Your task to perform on an android device: Do I have any events today? Image 0: 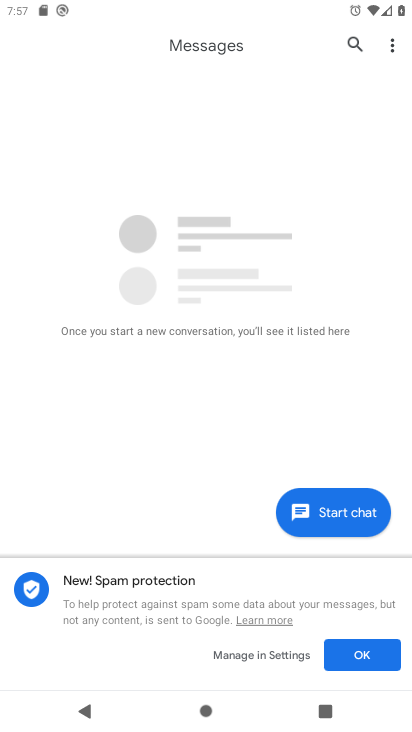
Step 0: press home button
Your task to perform on an android device: Do I have any events today? Image 1: 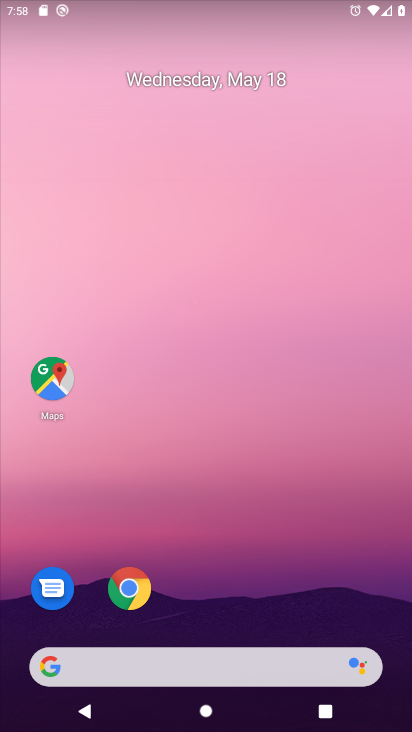
Step 1: drag from (198, 604) to (234, 258)
Your task to perform on an android device: Do I have any events today? Image 2: 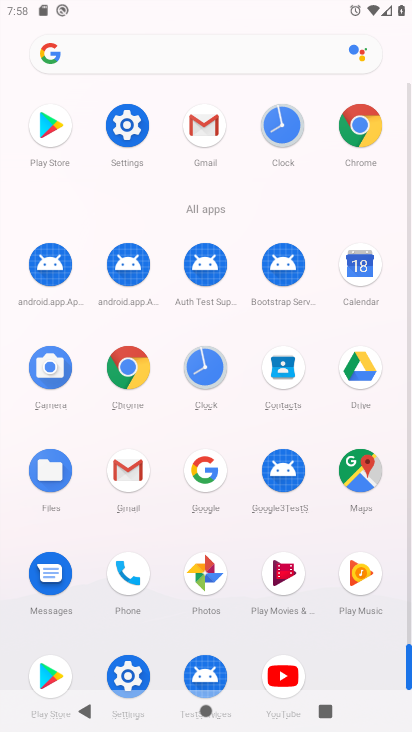
Step 2: click (367, 267)
Your task to perform on an android device: Do I have any events today? Image 3: 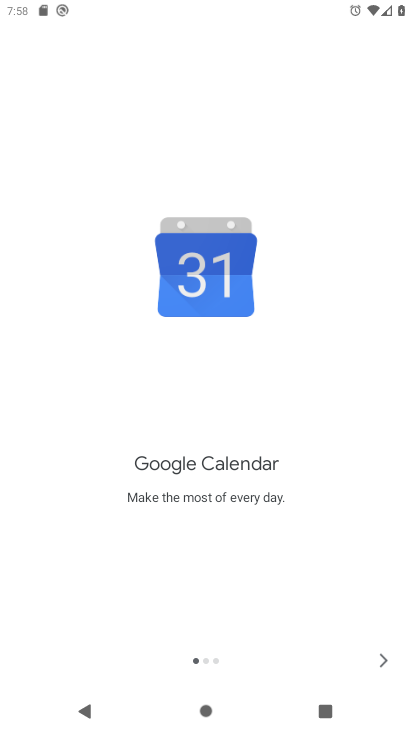
Step 3: click (379, 664)
Your task to perform on an android device: Do I have any events today? Image 4: 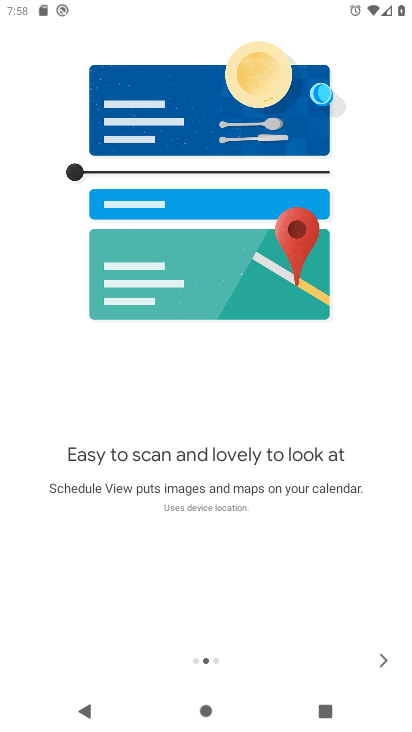
Step 4: click (374, 673)
Your task to perform on an android device: Do I have any events today? Image 5: 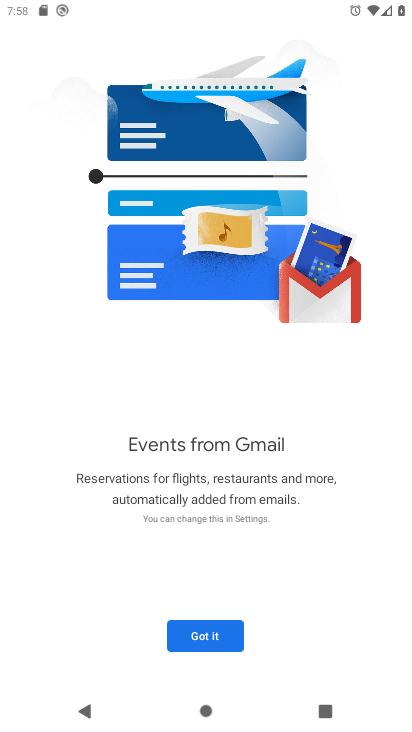
Step 5: click (220, 626)
Your task to perform on an android device: Do I have any events today? Image 6: 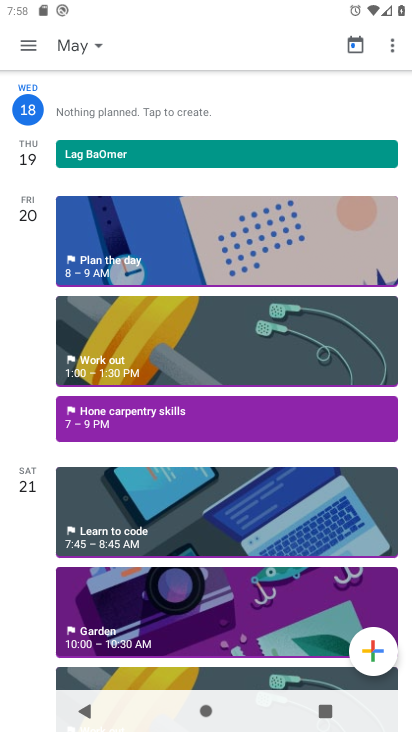
Step 6: click (32, 51)
Your task to perform on an android device: Do I have any events today? Image 7: 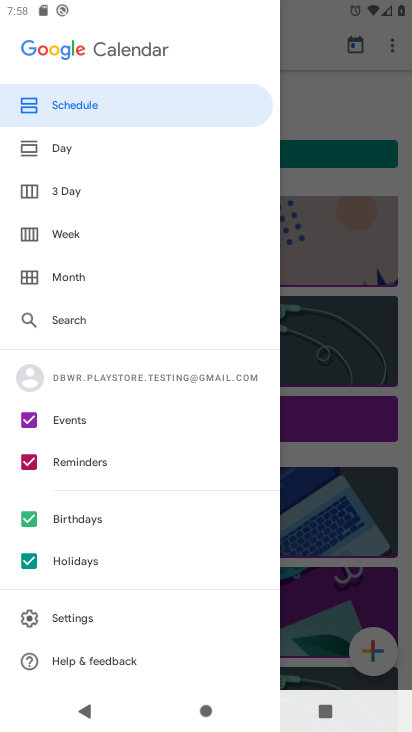
Step 7: click (83, 520)
Your task to perform on an android device: Do I have any events today? Image 8: 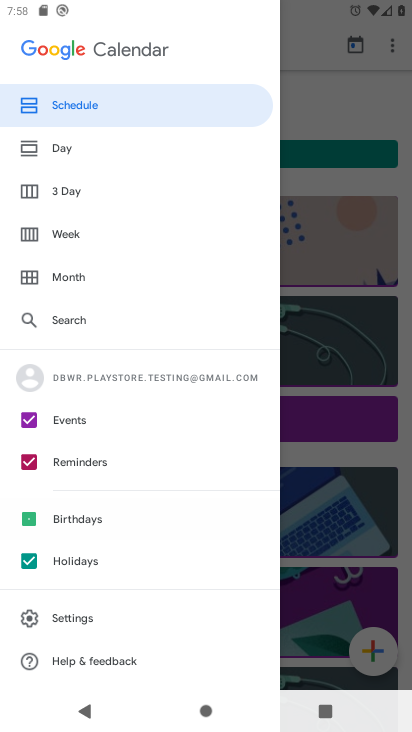
Step 8: click (76, 457)
Your task to perform on an android device: Do I have any events today? Image 9: 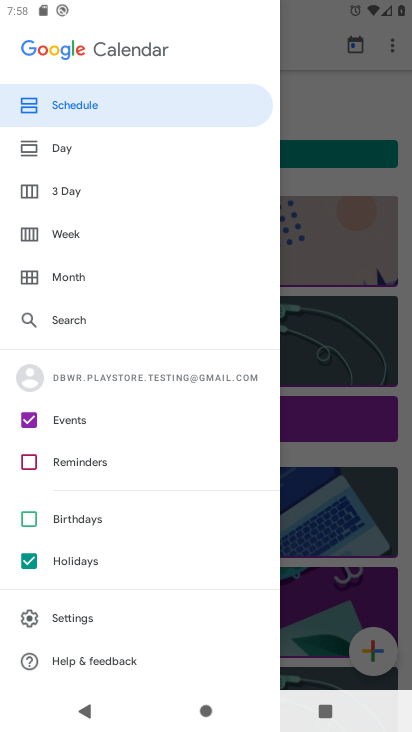
Step 9: click (39, 564)
Your task to perform on an android device: Do I have any events today? Image 10: 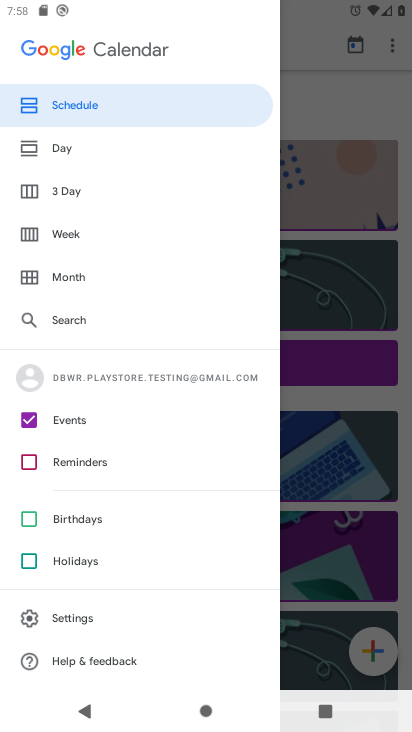
Step 10: click (68, 153)
Your task to perform on an android device: Do I have any events today? Image 11: 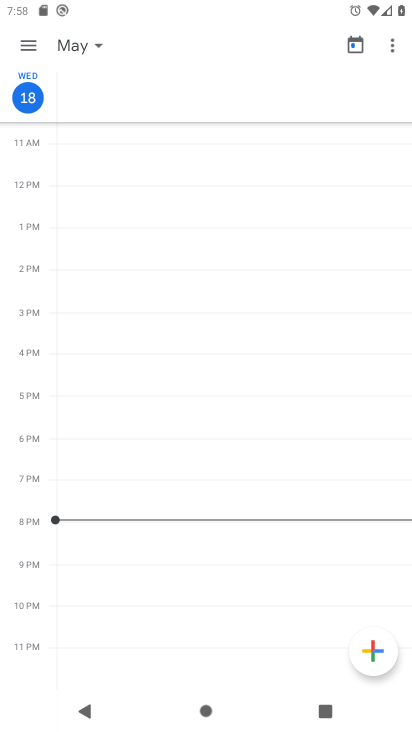
Step 11: task complete